Your task to perform on an android device: Open my contact list Image 0: 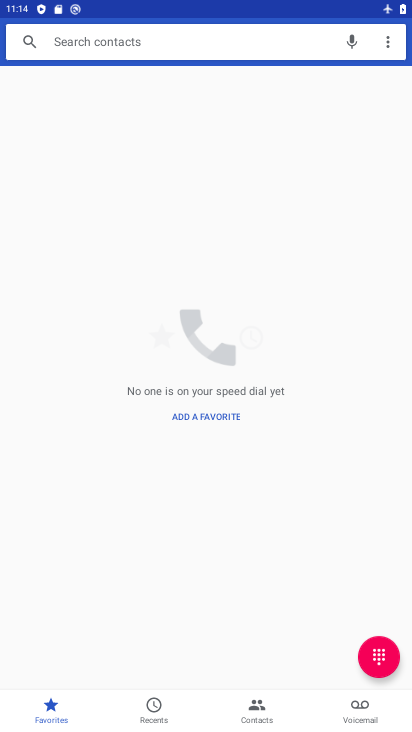
Step 0: press home button
Your task to perform on an android device: Open my contact list Image 1: 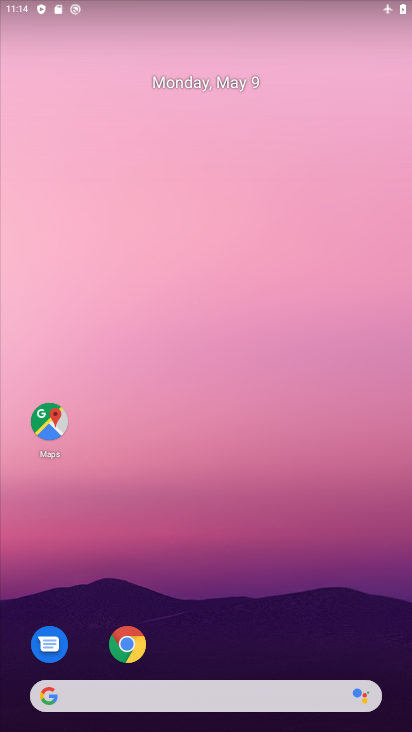
Step 1: drag from (225, 641) to (163, 143)
Your task to perform on an android device: Open my contact list Image 2: 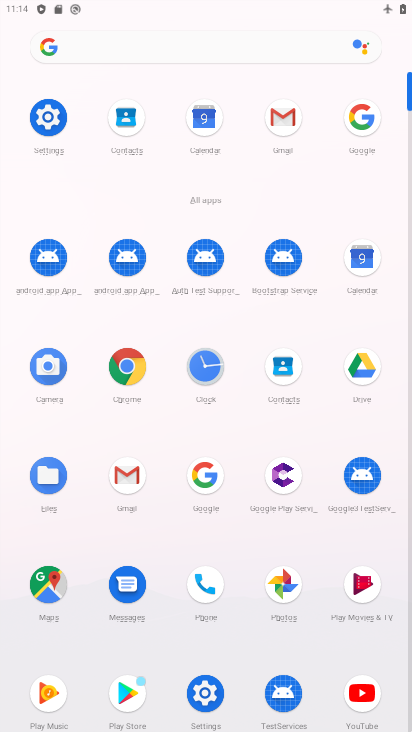
Step 2: click (281, 382)
Your task to perform on an android device: Open my contact list Image 3: 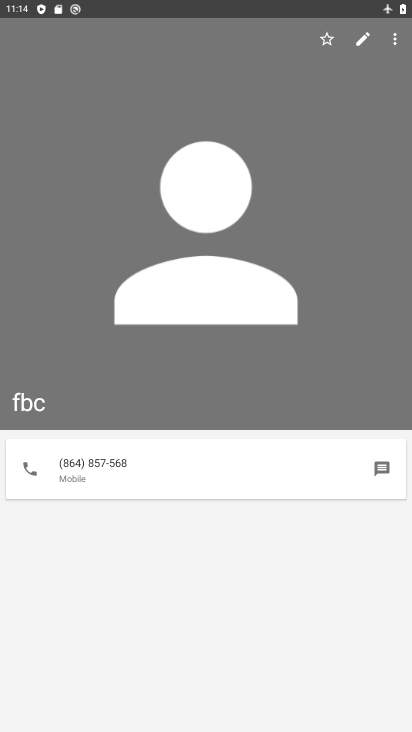
Step 3: task complete